Your task to perform on an android device: Do I have any events tomorrow? Image 0: 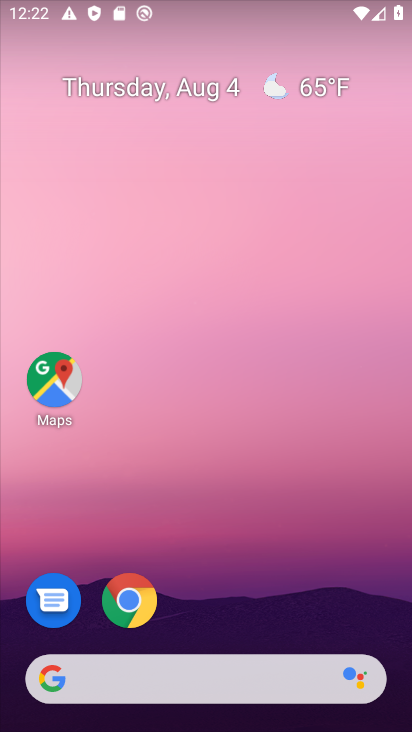
Step 0: drag from (262, 644) to (214, 2)
Your task to perform on an android device: Do I have any events tomorrow? Image 1: 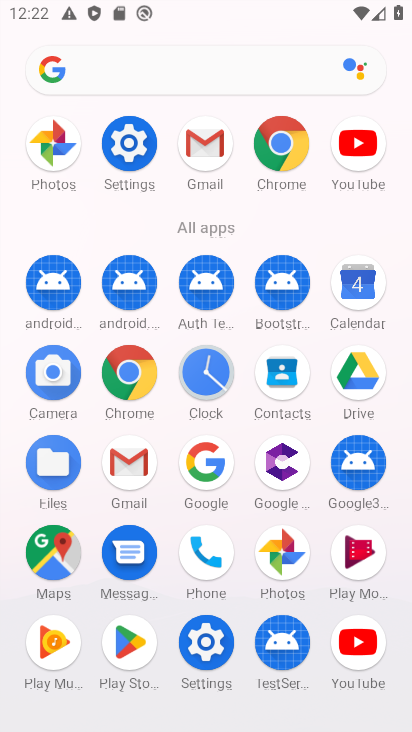
Step 1: click (348, 265)
Your task to perform on an android device: Do I have any events tomorrow? Image 2: 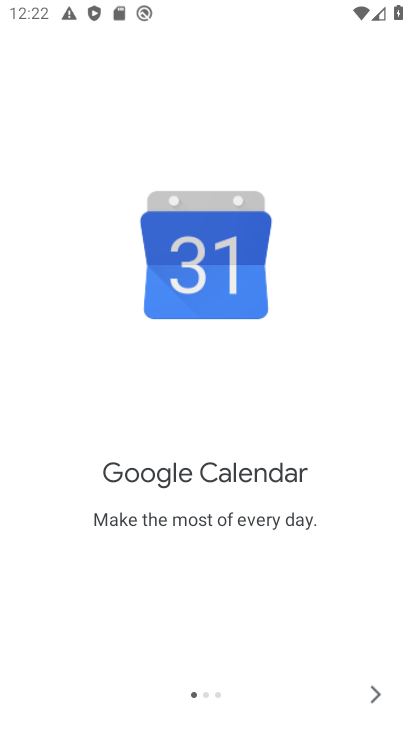
Step 2: click (386, 690)
Your task to perform on an android device: Do I have any events tomorrow? Image 3: 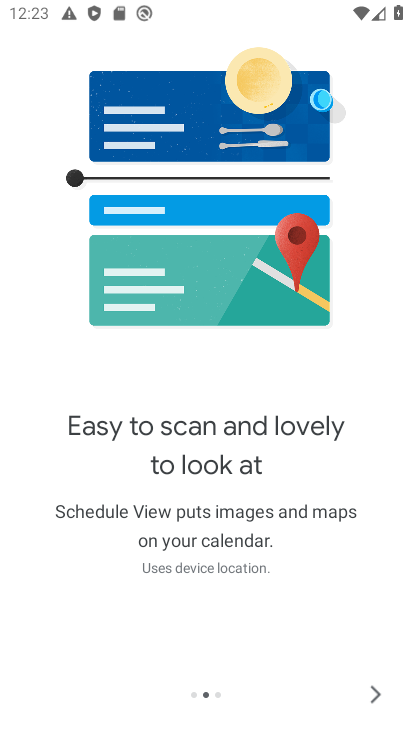
Step 3: click (386, 690)
Your task to perform on an android device: Do I have any events tomorrow? Image 4: 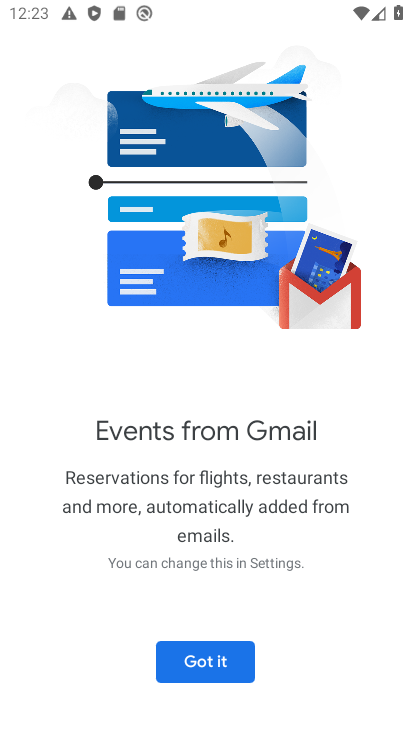
Step 4: click (189, 659)
Your task to perform on an android device: Do I have any events tomorrow? Image 5: 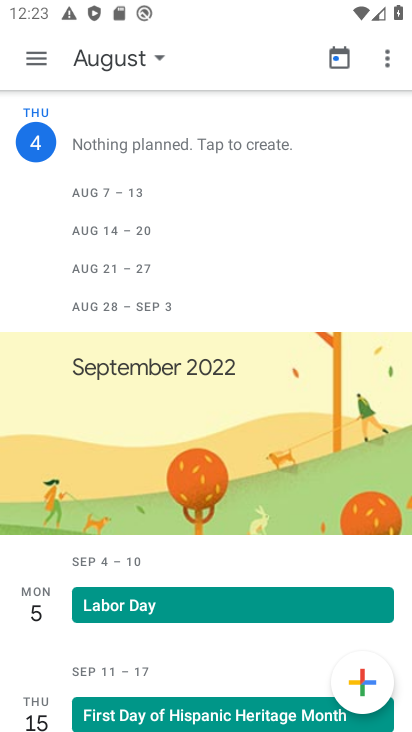
Step 5: click (34, 59)
Your task to perform on an android device: Do I have any events tomorrow? Image 6: 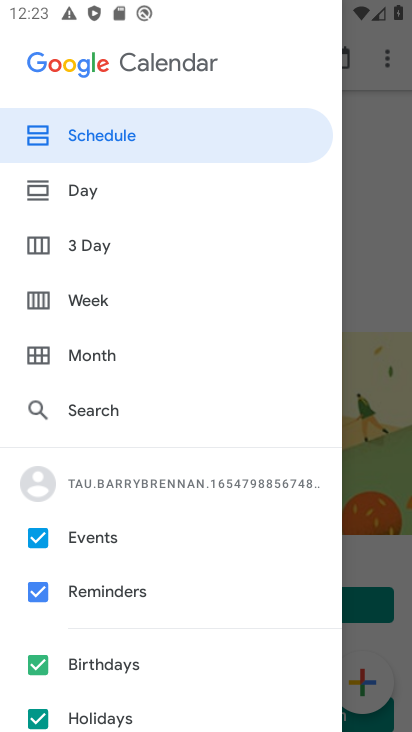
Step 6: click (72, 286)
Your task to perform on an android device: Do I have any events tomorrow? Image 7: 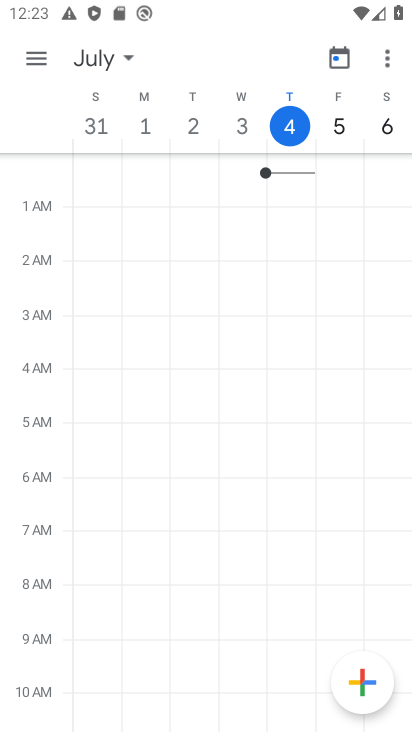
Step 7: click (340, 117)
Your task to perform on an android device: Do I have any events tomorrow? Image 8: 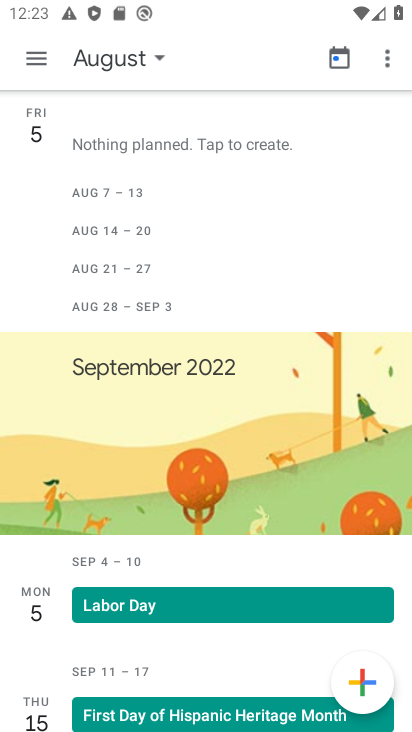
Step 8: task complete